Your task to perform on an android device: Check the weather Image 0: 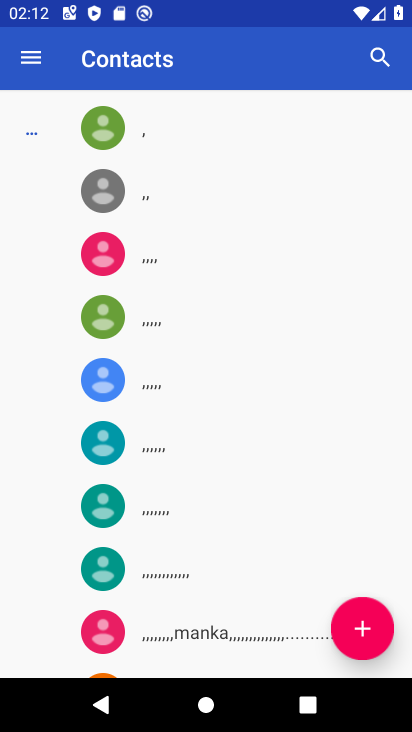
Step 0: drag from (229, 621) to (252, 307)
Your task to perform on an android device: Check the weather Image 1: 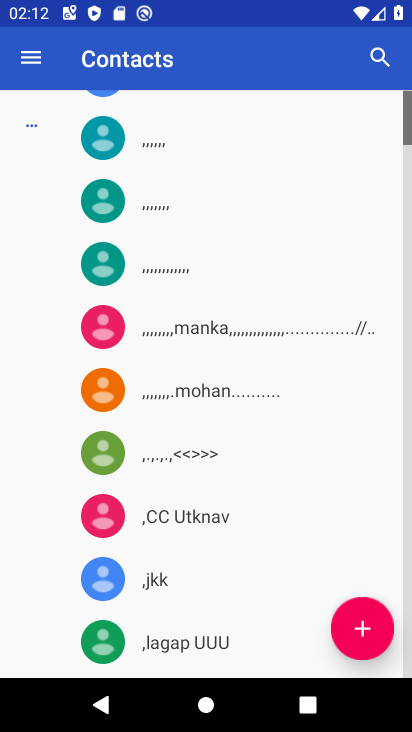
Step 1: drag from (250, 273) to (315, 676)
Your task to perform on an android device: Check the weather Image 2: 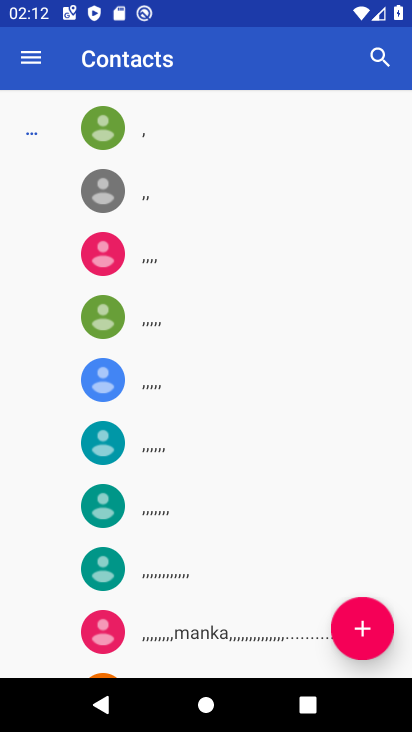
Step 2: press home button
Your task to perform on an android device: Check the weather Image 3: 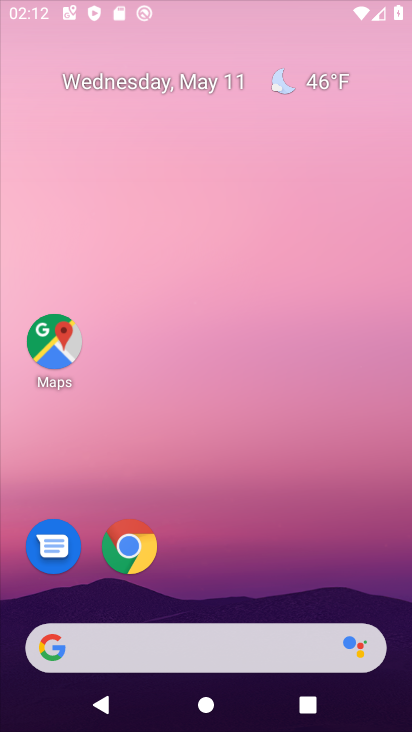
Step 3: drag from (203, 573) to (307, 113)
Your task to perform on an android device: Check the weather Image 4: 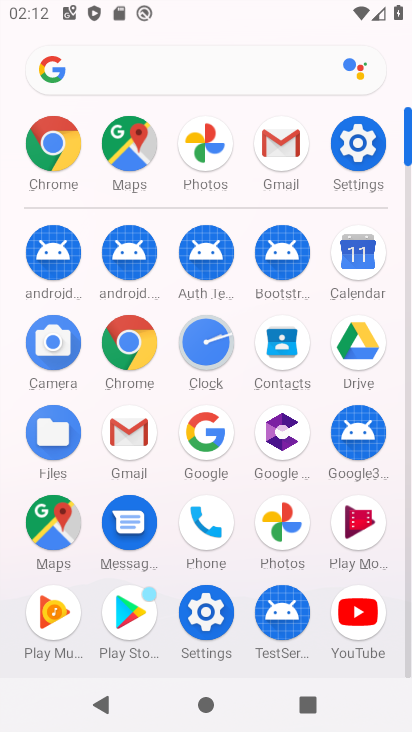
Step 4: click (160, 59)
Your task to perform on an android device: Check the weather Image 5: 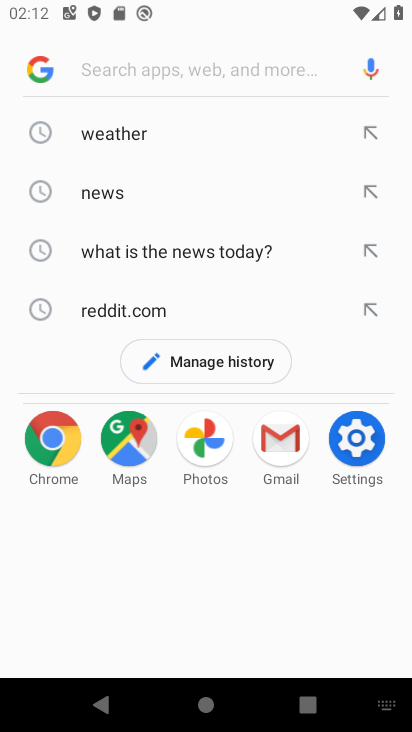
Step 5: click (135, 126)
Your task to perform on an android device: Check the weather Image 6: 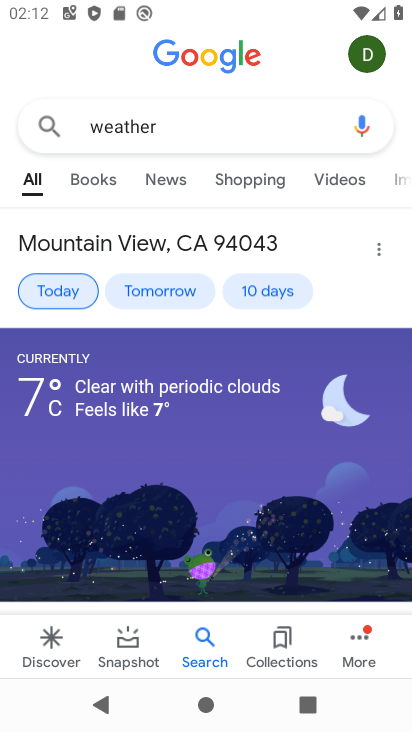
Step 6: task complete